Your task to perform on an android device: turn on translation in the chrome app Image 0: 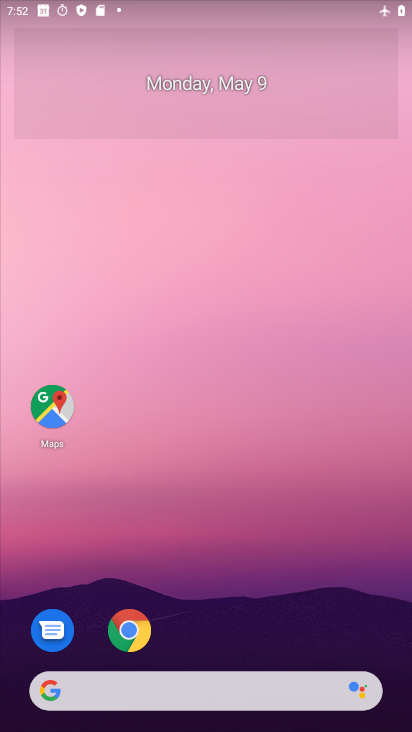
Step 0: drag from (309, 574) to (255, 184)
Your task to perform on an android device: turn on translation in the chrome app Image 1: 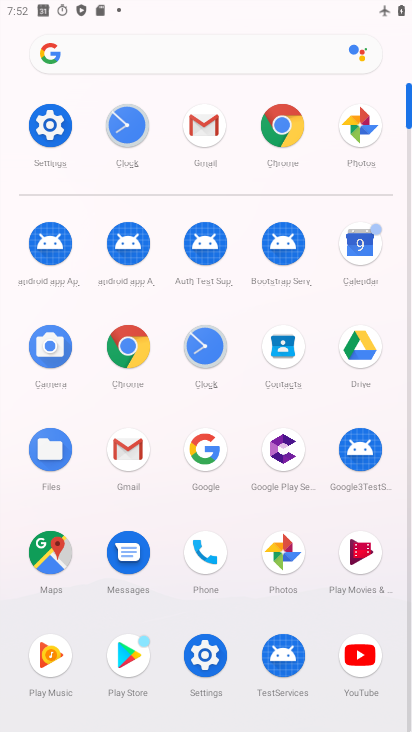
Step 1: click (111, 353)
Your task to perform on an android device: turn on translation in the chrome app Image 2: 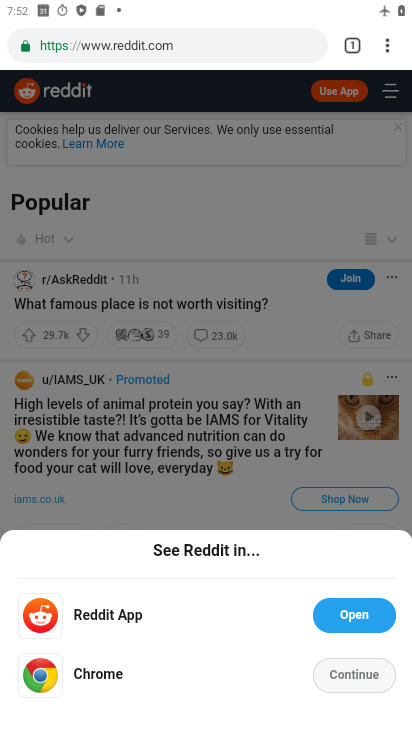
Step 2: drag from (389, 57) to (248, 558)
Your task to perform on an android device: turn on translation in the chrome app Image 3: 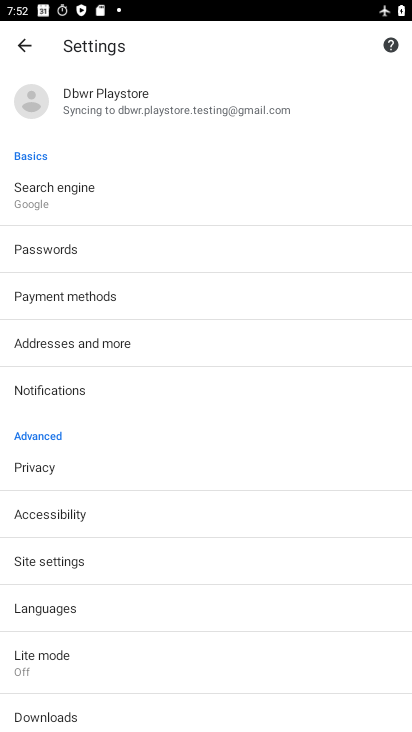
Step 3: click (66, 604)
Your task to perform on an android device: turn on translation in the chrome app Image 4: 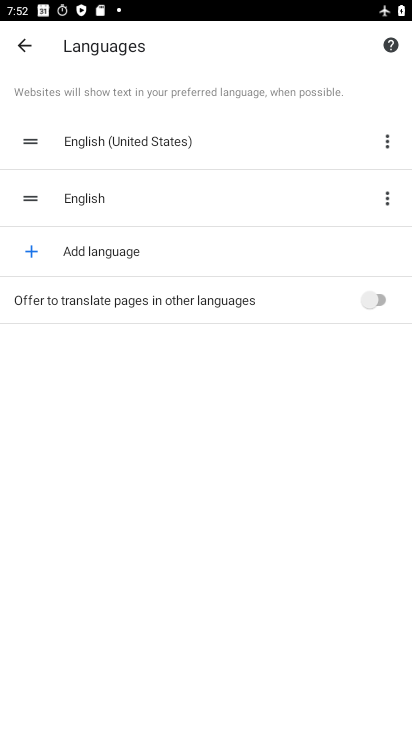
Step 4: click (387, 301)
Your task to perform on an android device: turn on translation in the chrome app Image 5: 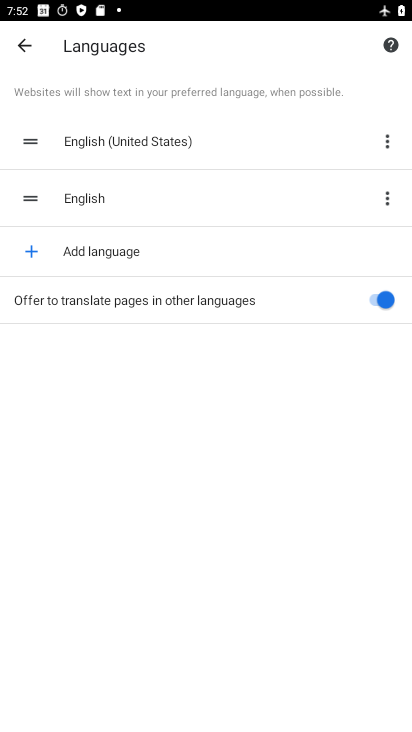
Step 5: task complete